Your task to perform on an android device: Go to internet settings Image 0: 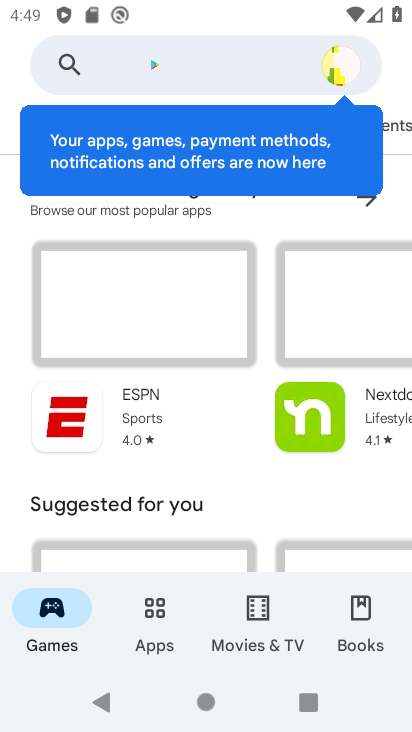
Step 0: press home button
Your task to perform on an android device: Go to internet settings Image 1: 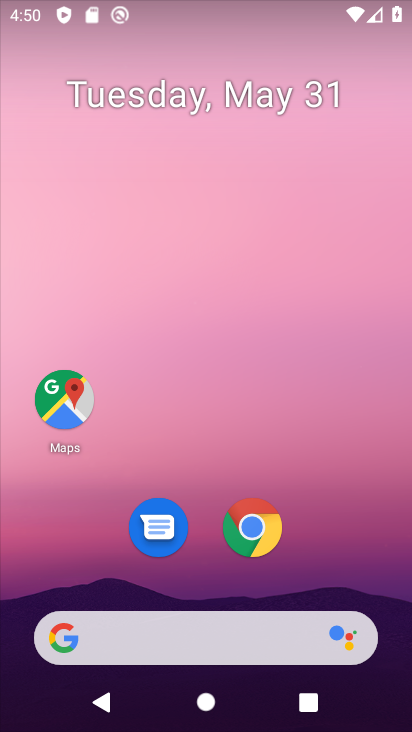
Step 1: drag from (349, 532) to (358, 51)
Your task to perform on an android device: Go to internet settings Image 2: 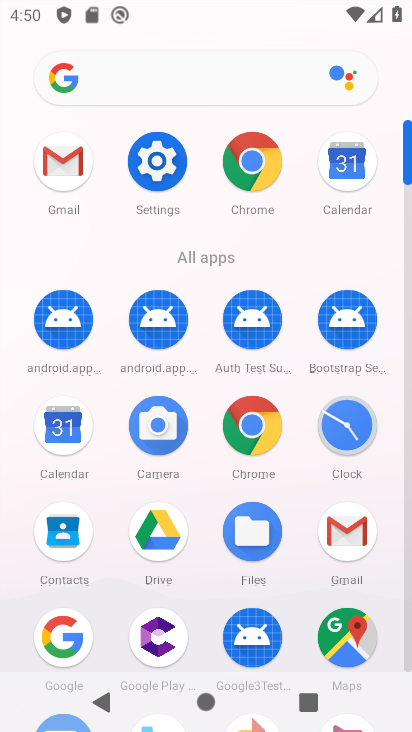
Step 2: click (153, 170)
Your task to perform on an android device: Go to internet settings Image 3: 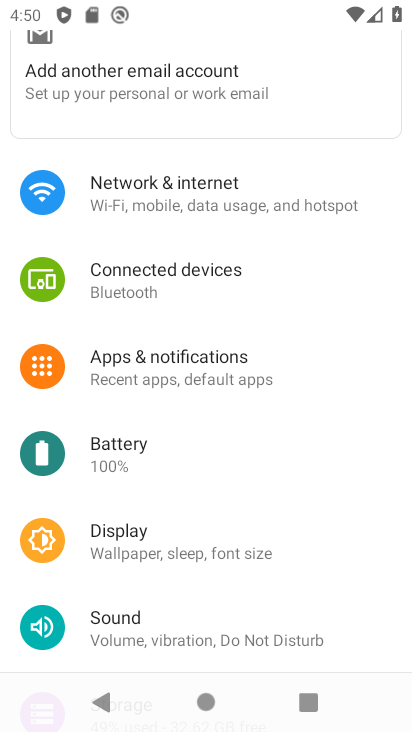
Step 3: click (218, 187)
Your task to perform on an android device: Go to internet settings Image 4: 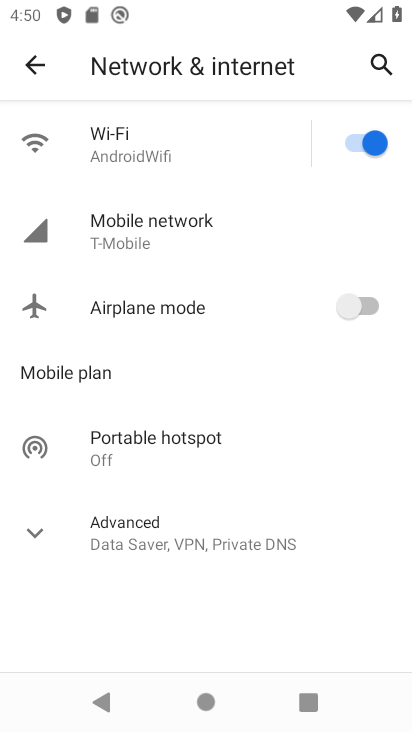
Step 4: task complete